Your task to perform on an android device: Open Wikipedia Image 0: 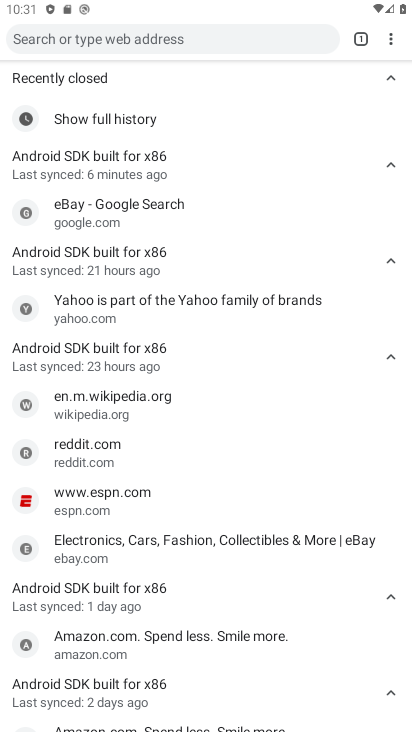
Step 0: click (396, 35)
Your task to perform on an android device: Open Wikipedia Image 1: 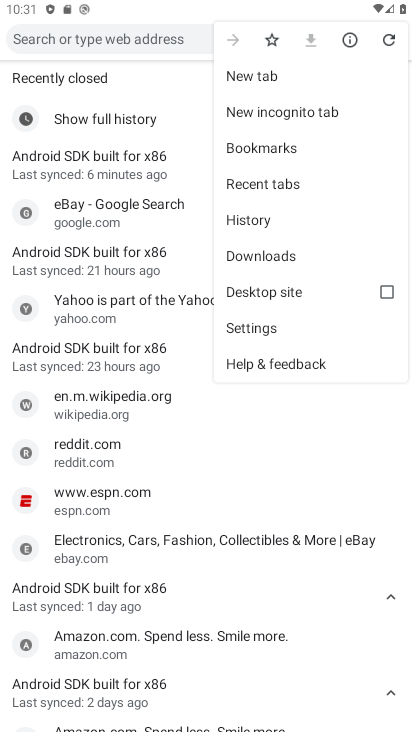
Step 1: click (267, 76)
Your task to perform on an android device: Open Wikipedia Image 2: 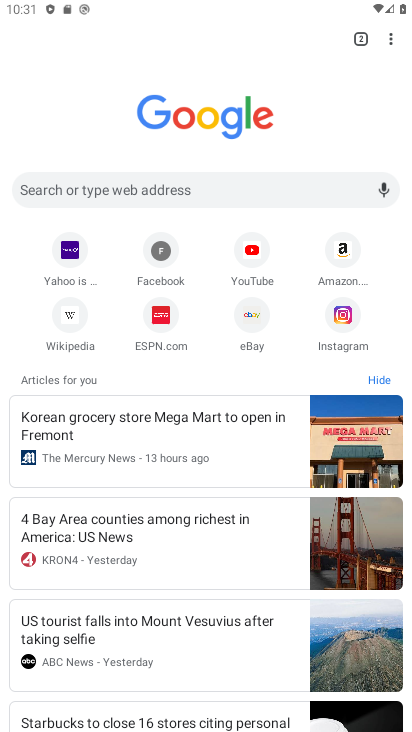
Step 2: click (69, 317)
Your task to perform on an android device: Open Wikipedia Image 3: 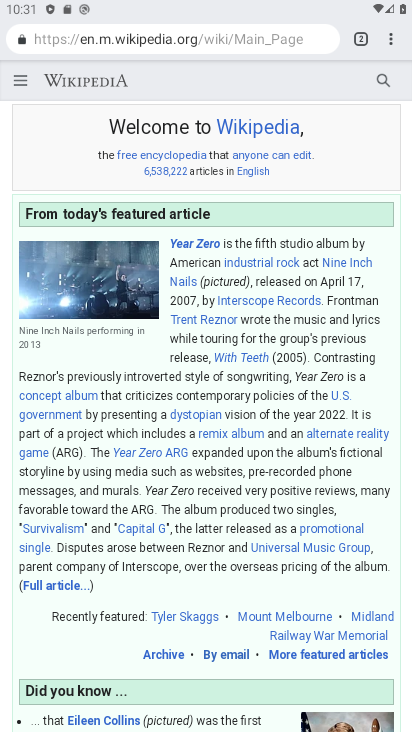
Step 3: task complete